Your task to perform on an android device: Open Reddit.com Image 0: 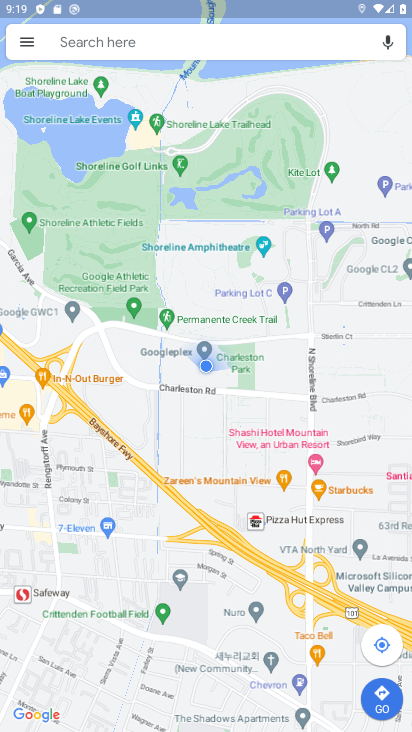
Step 0: press home button
Your task to perform on an android device: Open Reddit.com Image 1: 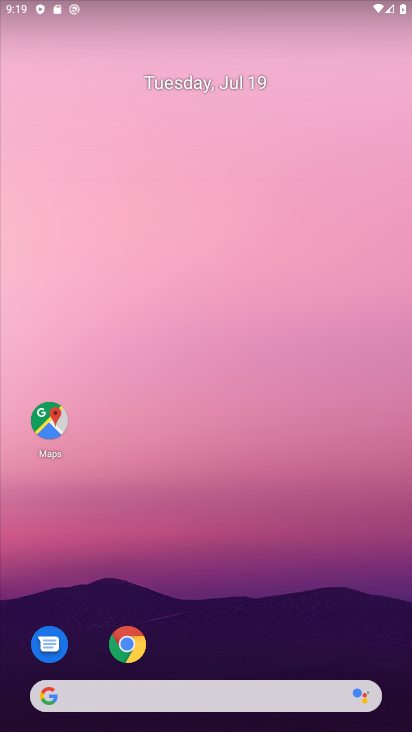
Step 1: click (165, 682)
Your task to perform on an android device: Open Reddit.com Image 2: 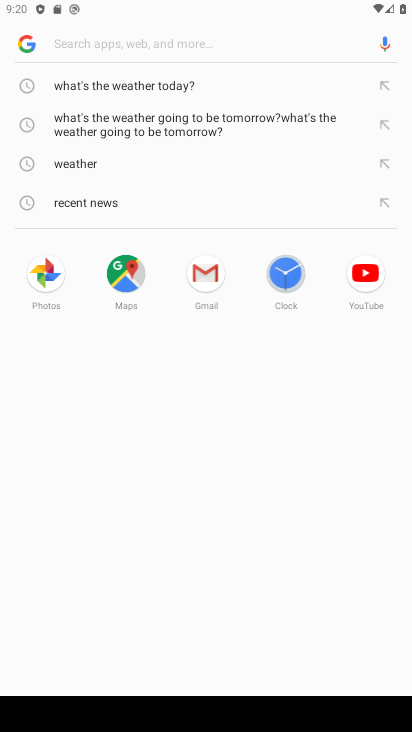
Step 2: type " Reddit.com"
Your task to perform on an android device: Open Reddit.com Image 3: 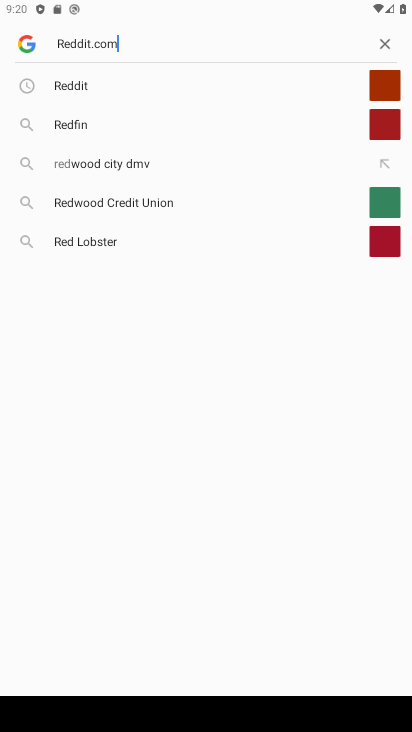
Step 3: press enter
Your task to perform on an android device: Open Reddit.com Image 4: 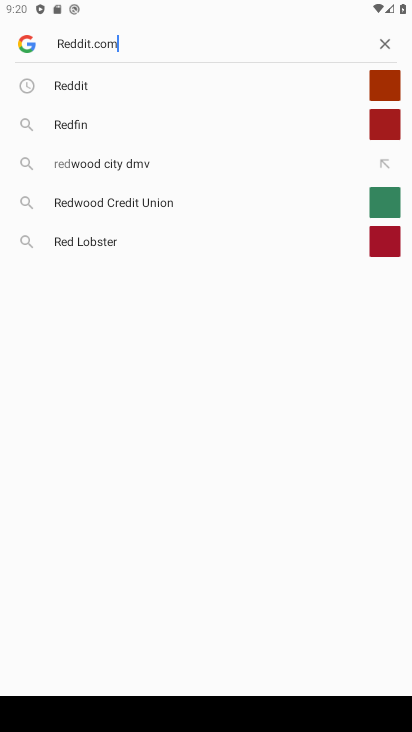
Step 4: type ""
Your task to perform on an android device: Open Reddit.com Image 5: 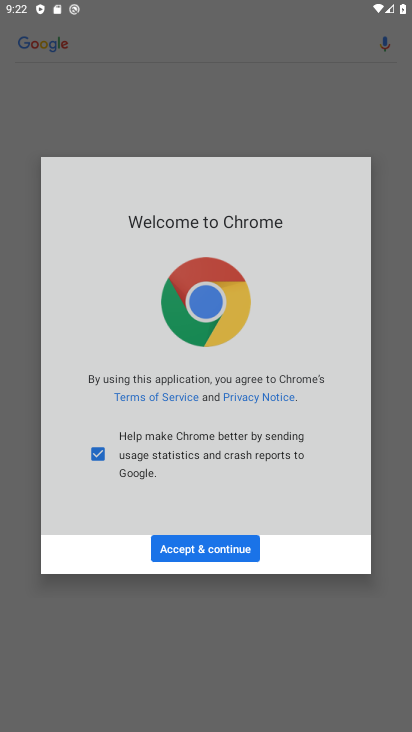
Step 5: click (242, 551)
Your task to perform on an android device: Open Reddit.com Image 6: 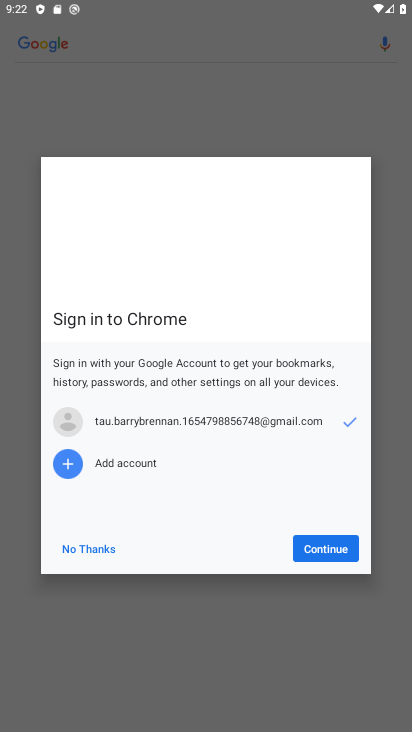
Step 6: click (347, 547)
Your task to perform on an android device: Open Reddit.com Image 7: 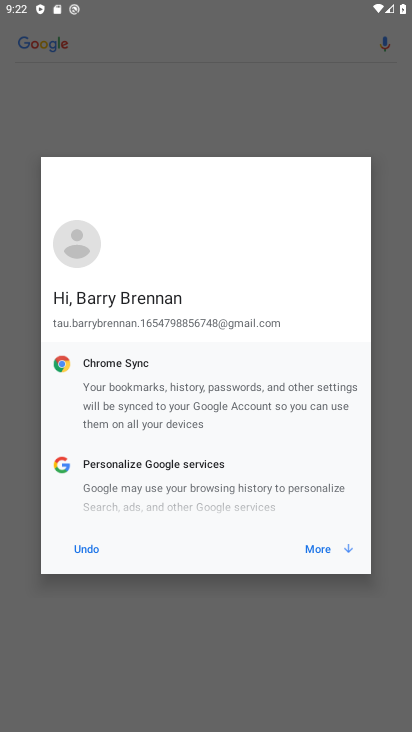
Step 7: click (319, 548)
Your task to perform on an android device: Open Reddit.com Image 8: 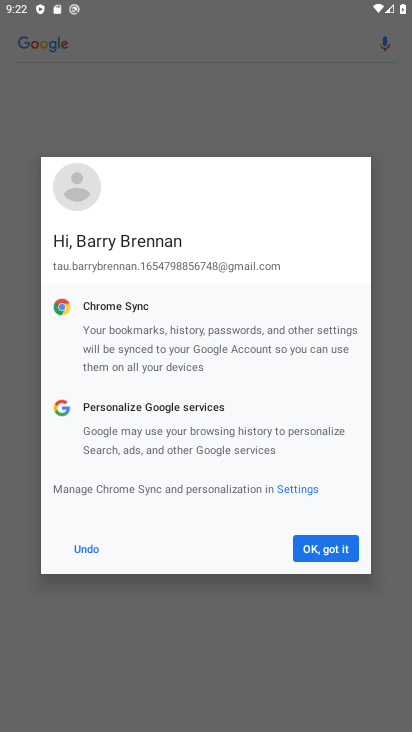
Step 8: click (317, 546)
Your task to perform on an android device: Open Reddit.com Image 9: 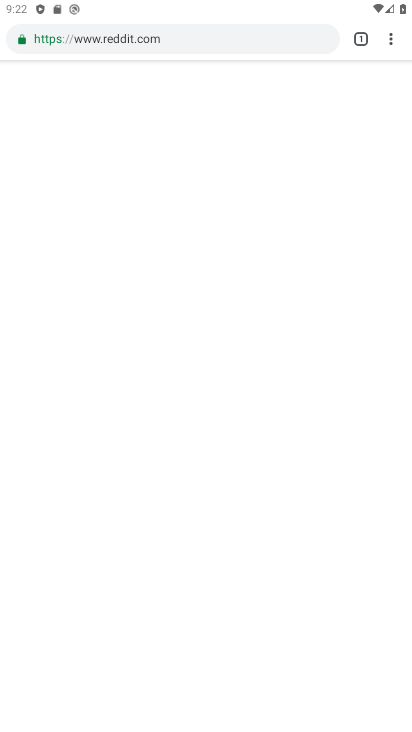
Step 9: task complete